Your task to perform on an android device: turn on the 24-hour format for clock Image 0: 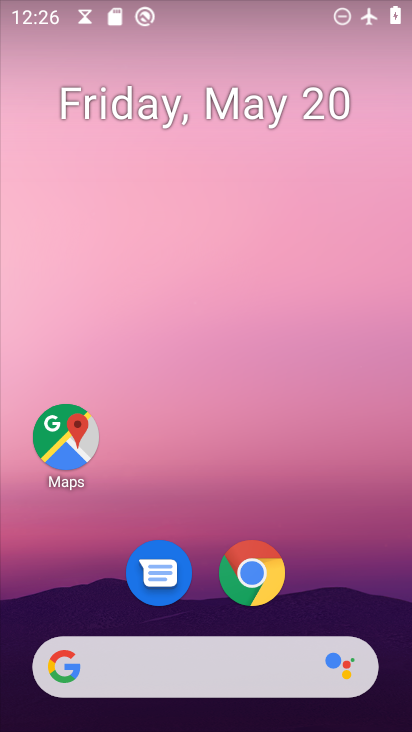
Step 0: drag from (334, 594) to (370, 120)
Your task to perform on an android device: turn on the 24-hour format for clock Image 1: 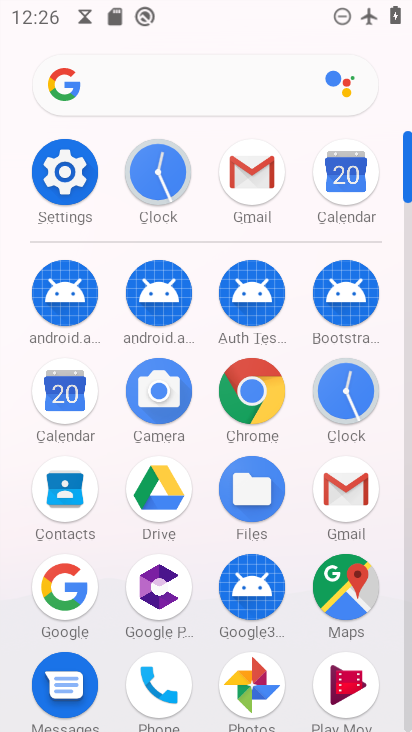
Step 1: click (52, 169)
Your task to perform on an android device: turn on the 24-hour format for clock Image 2: 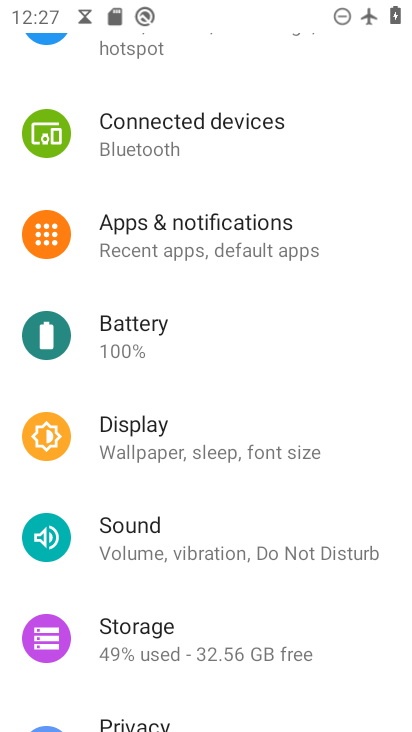
Step 2: drag from (168, 664) to (187, 189)
Your task to perform on an android device: turn on the 24-hour format for clock Image 3: 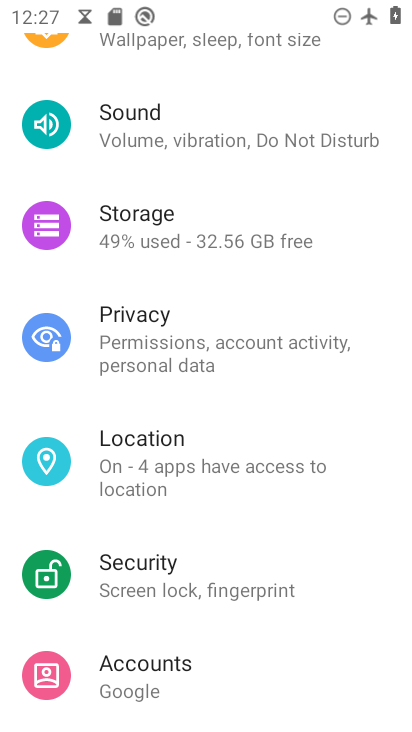
Step 3: drag from (181, 687) to (268, 230)
Your task to perform on an android device: turn on the 24-hour format for clock Image 4: 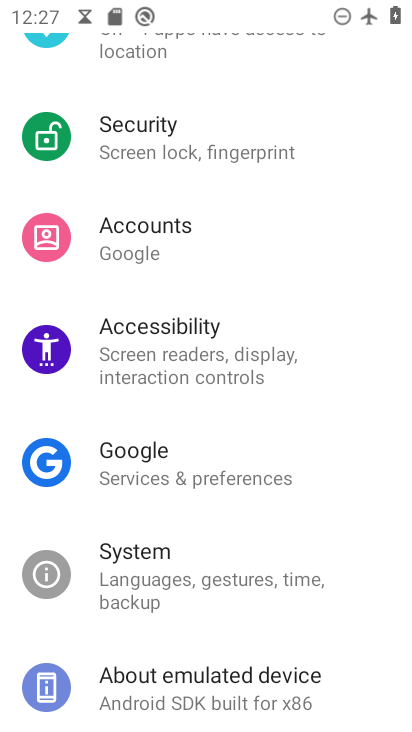
Step 4: click (269, 584)
Your task to perform on an android device: turn on the 24-hour format for clock Image 5: 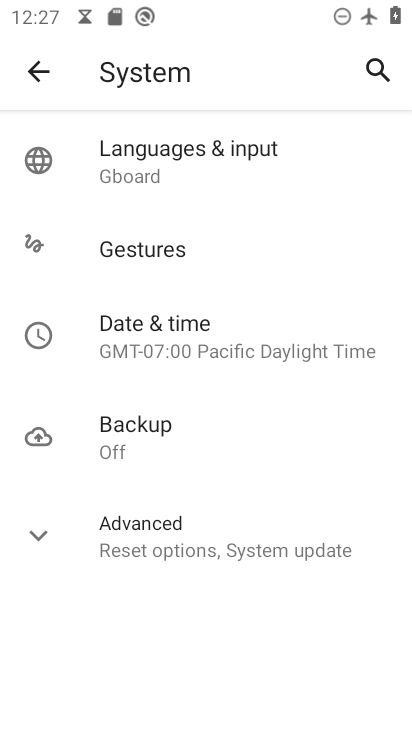
Step 5: click (158, 349)
Your task to perform on an android device: turn on the 24-hour format for clock Image 6: 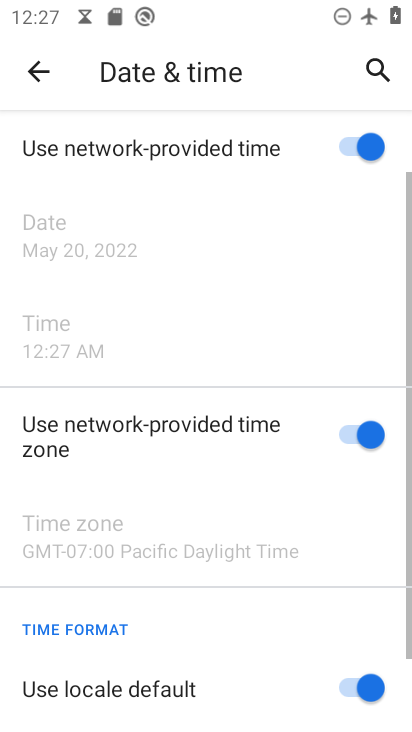
Step 6: drag from (217, 607) to (263, 107)
Your task to perform on an android device: turn on the 24-hour format for clock Image 7: 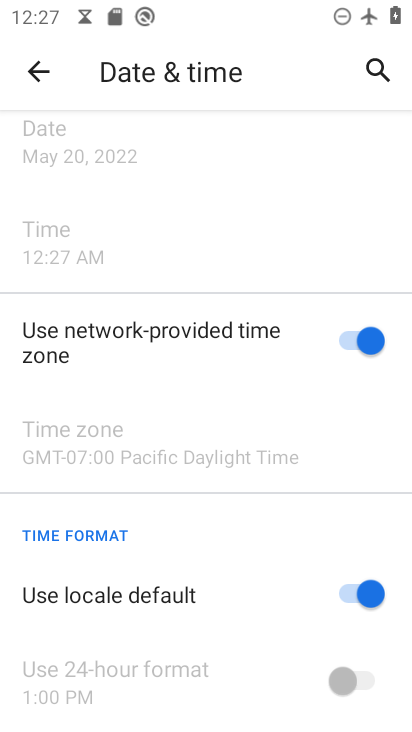
Step 7: click (375, 576)
Your task to perform on an android device: turn on the 24-hour format for clock Image 8: 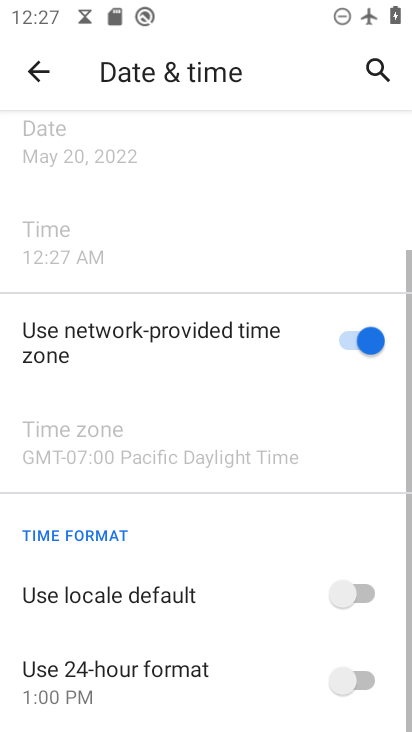
Step 8: click (350, 686)
Your task to perform on an android device: turn on the 24-hour format for clock Image 9: 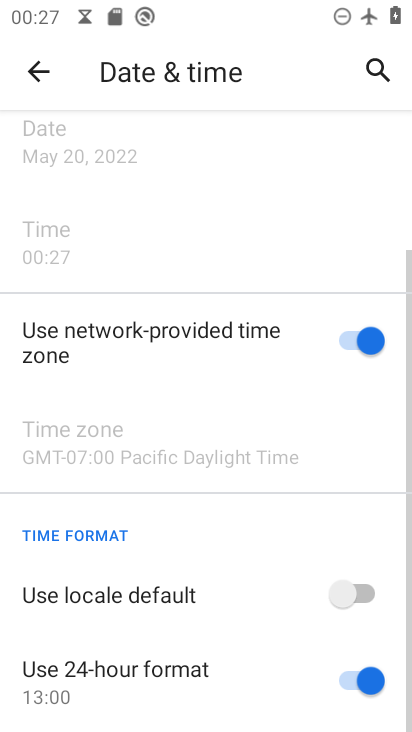
Step 9: task complete